Your task to perform on an android device: Go to network settings Image 0: 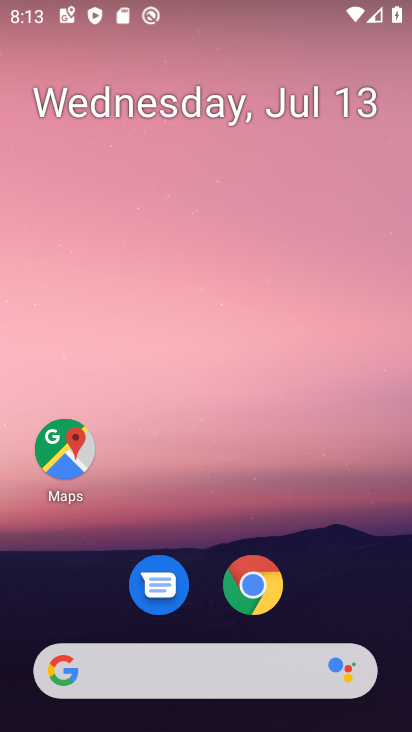
Step 0: drag from (320, 625) to (309, 43)
Your task to perform on an android device: Go to network settings Image 1: 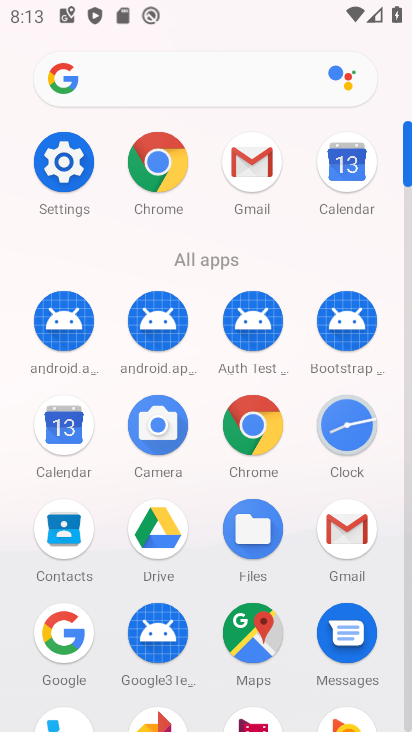
Step 1: click (91, 158)
Your task to perform on an android device: Go to network settings Image 2: 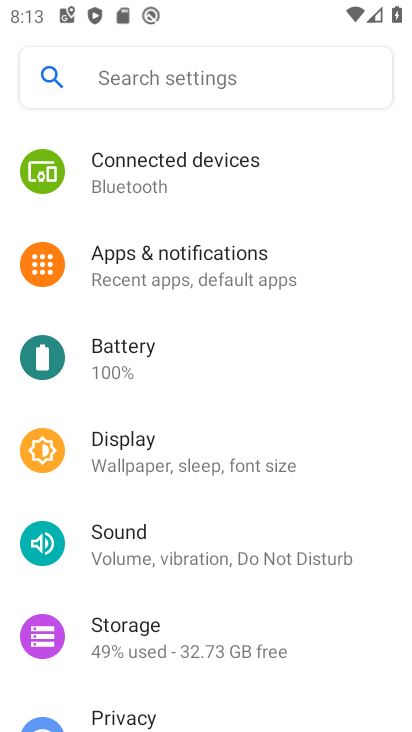
Step 2: drag from (210, 237) to (218, 525)
Your task to perform on an android device: Go to network settings Image 3: 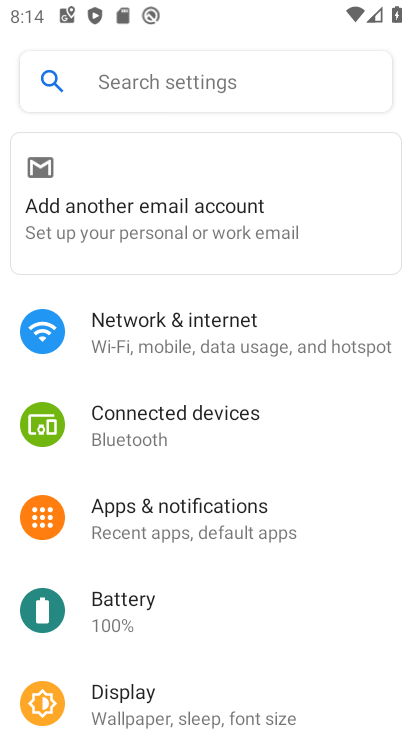
Step 3: click (223, 338)
Your task to perform on an android device: Go to network settings Image 4: 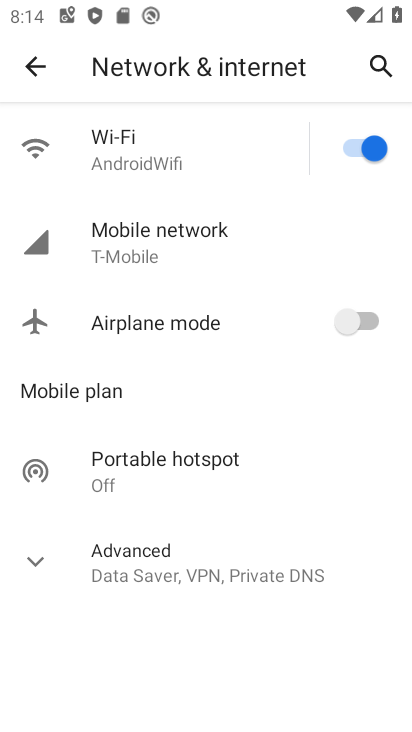
Step 4: task complete